Your task to perform on an android device: Open sound settings Image 0: 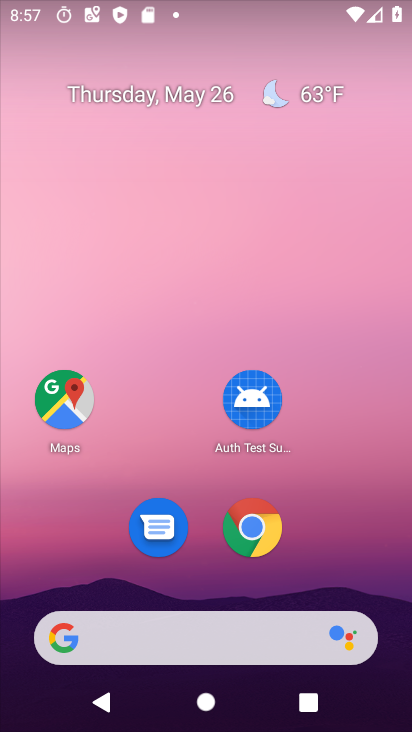
Step 0: drag from (340, 469) to (294, 119)
Your task to perform on an android device: Open sound settings Image 1: 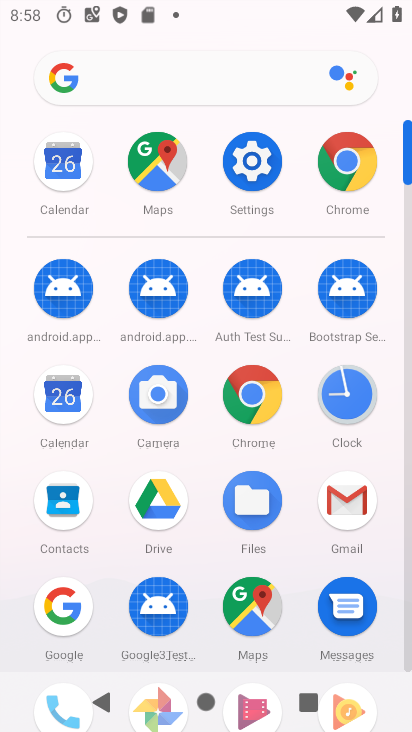
Step 1: click (221, 174)
Your task to perform on an android device: Open sound settings Image 2: 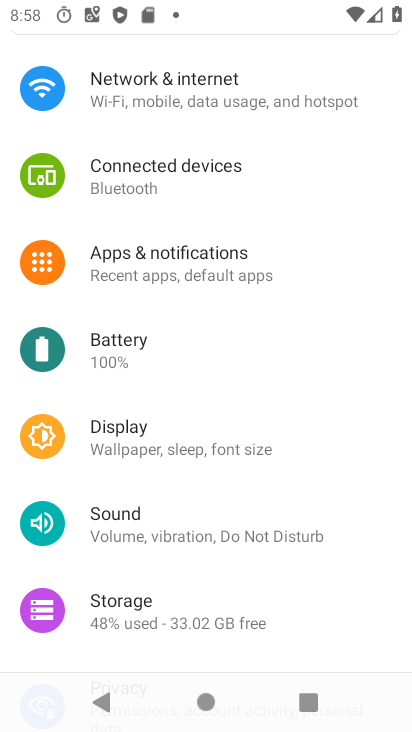
Step 2: click (128, 533)
Your task to perform on an android device: Open sound settings Image 3: 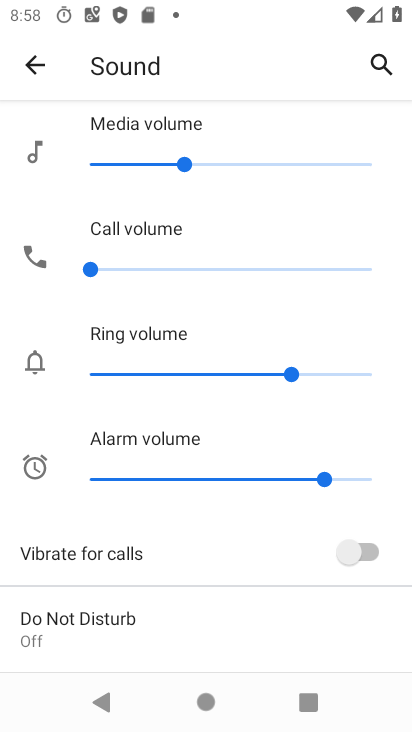
Step 3: task complete